Your task to perform on an android device: Play the last video I watched on Youtube Image 0: 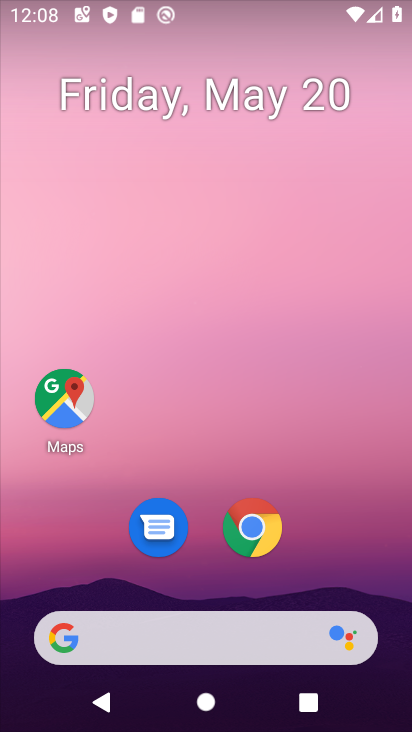
Step 0: press home button
Your task to perform on an android device: Play the last video I watched on Youtube Image 1: 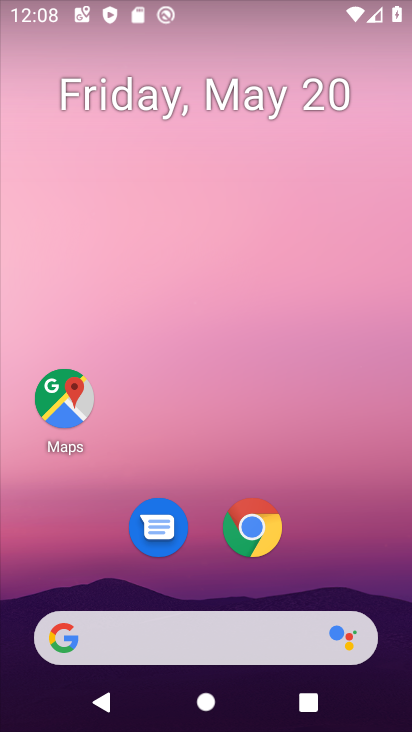
Step 1: drag from (394, 568) to (404, 5)
Your task to perform on an android device: Play the last video I watched on Youtube Image 2: 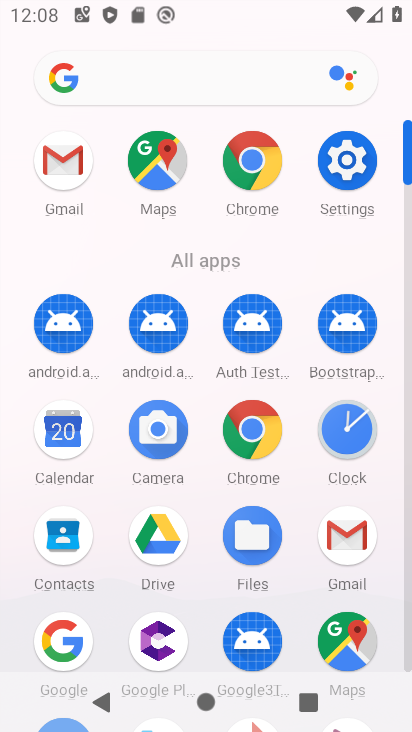
Step 2: click (408, 665)
Your task to perform on an android device: Play the last video I watched on Youtube Image 3: 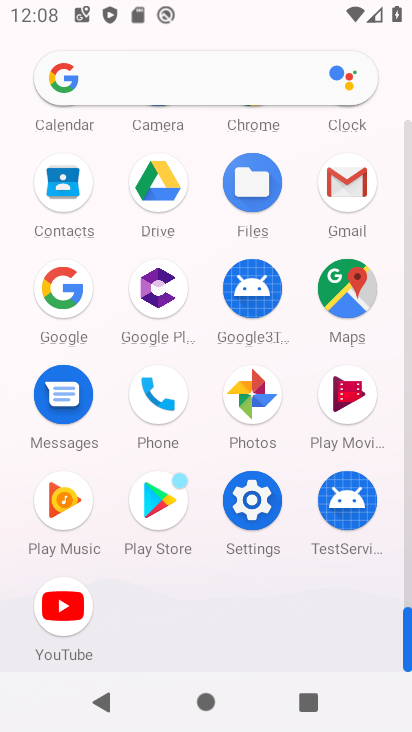
Step 3: click (61, 620)
Your task to perform on an android device: Play the last video I watched on Youtube Image 4: 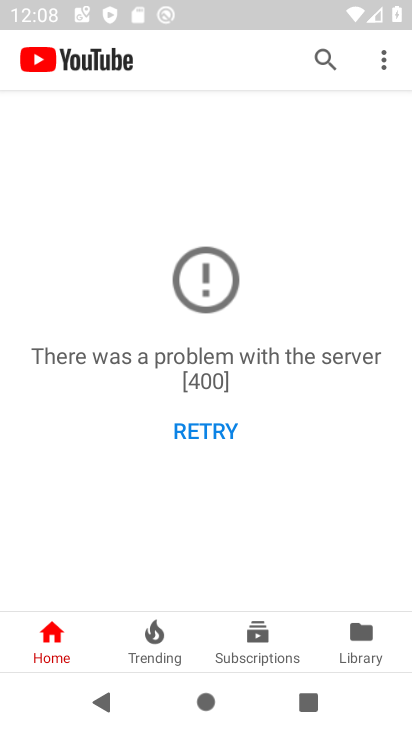
Step 4: task complete